Your task to perform on an android device: Search for pizza restaurants on Maps Image 0: 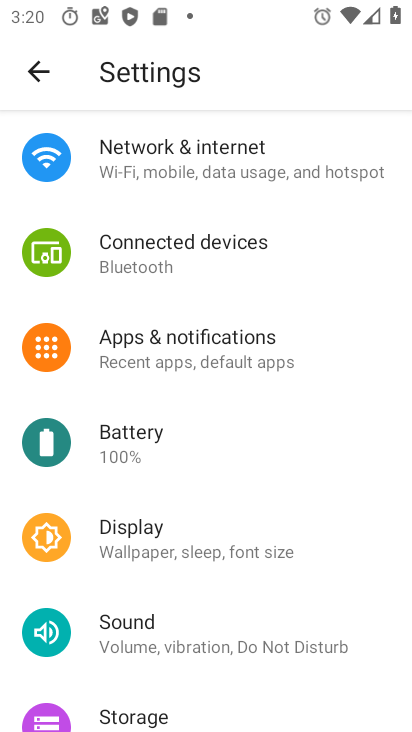
Step 0: press home button
Your task to perform on an android device: Search for pizza restaurants on Maps Image 1: 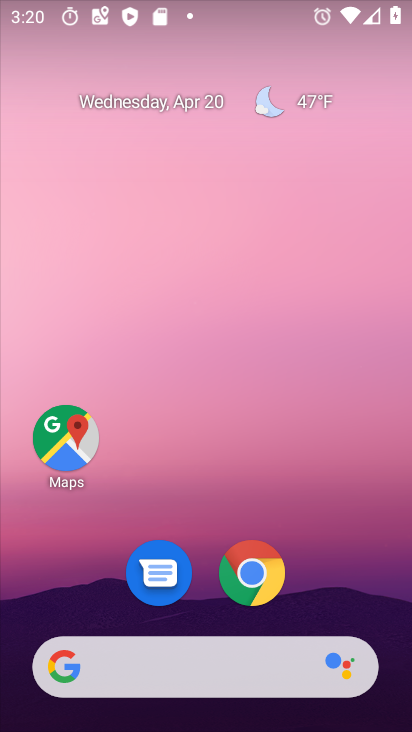
Step 1: drag from (212, 707) to (212, 135)
Your task to perform on an android device: Search for pizza restaurants on Maps Image 2: 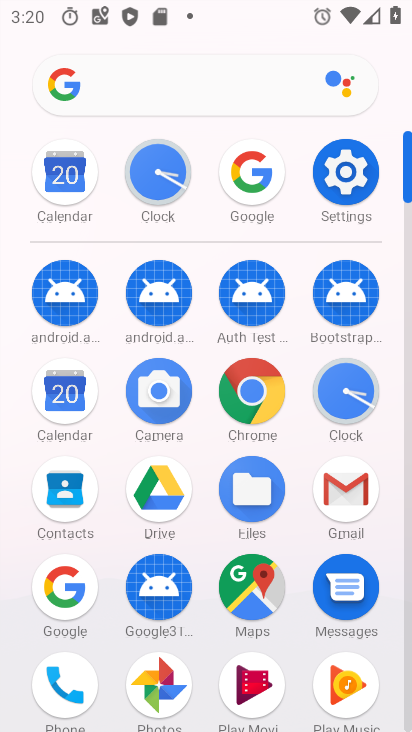
Step 2: click (251, 581)
Your task to perform on an android device: Search for pizza restaurants on Maps Image 3: 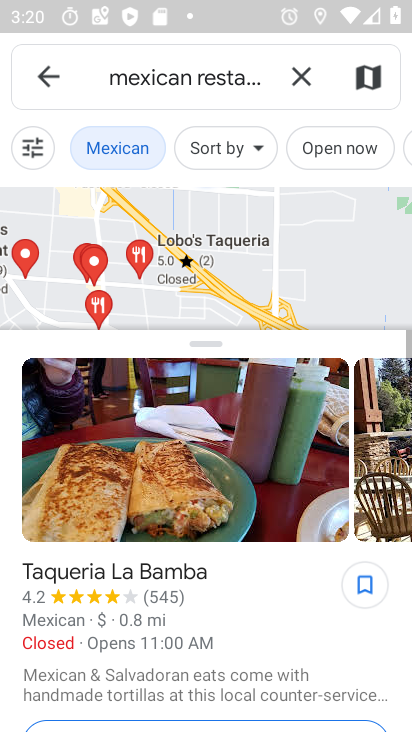
Step 3: click (303, 71)
Your task to perform on an android device: Search for pizza restaurants on Maps Image 4: 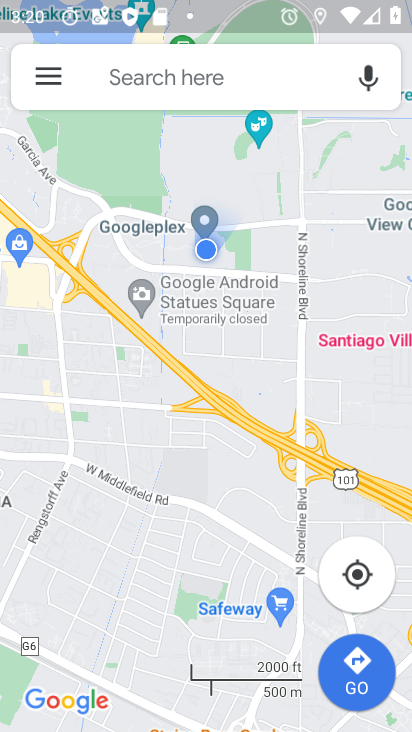
Step 4: click (196, 75)
Your task to perform on an android device: Search for pizza restaurants on Maps Image 5: 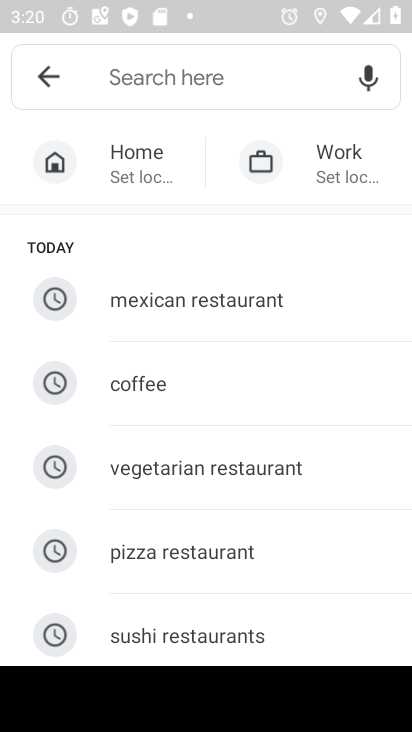
Step 5: type "Pizza restaurants"
Your task to perform on an android device: Search for pizza restaurants on Maps Image 6: 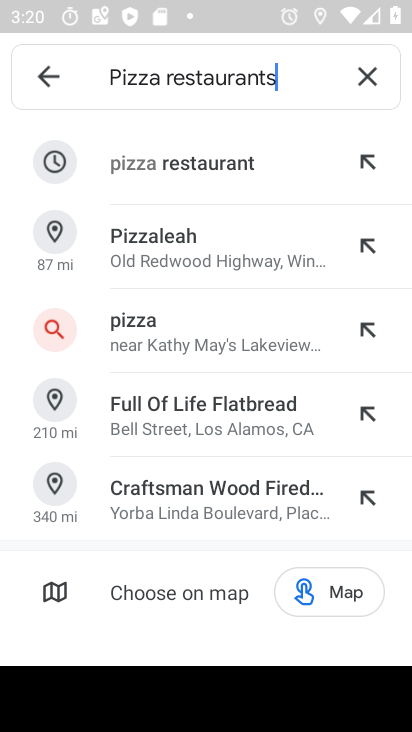
Step 6: click (213, 161)
Your task to perform on an android device: Search for pizza restaurants on Maps Image 7: 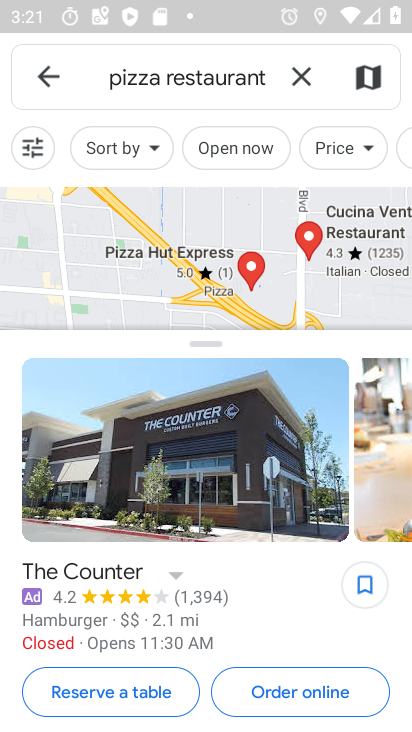
Step 7: task complete